Your task to perform on an android device: Do I have any events today? Image 0: 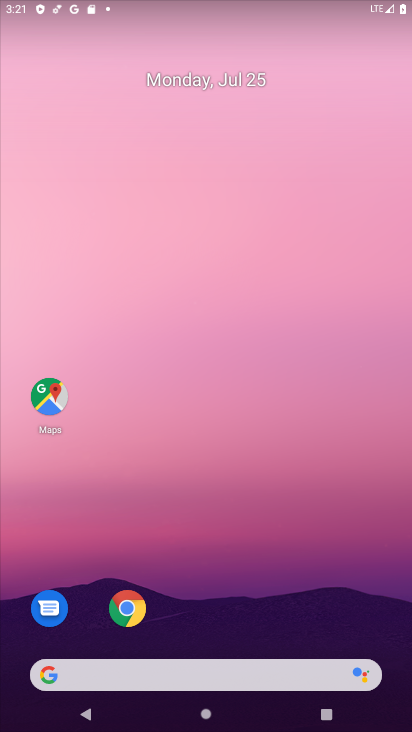
Step 0: drag from (18, 650) to (261, 69)
Your task to perform on an android device: Do I have any events today? Image 1: 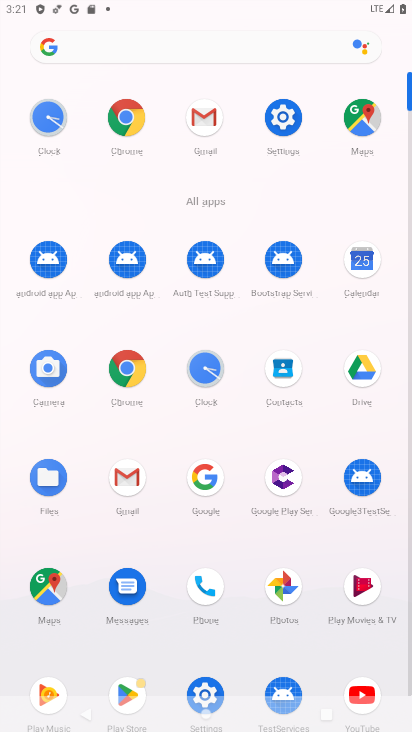
Step 1: click (367, 267)
Your task to perform on an android device: Do I have any events today? Image 2: 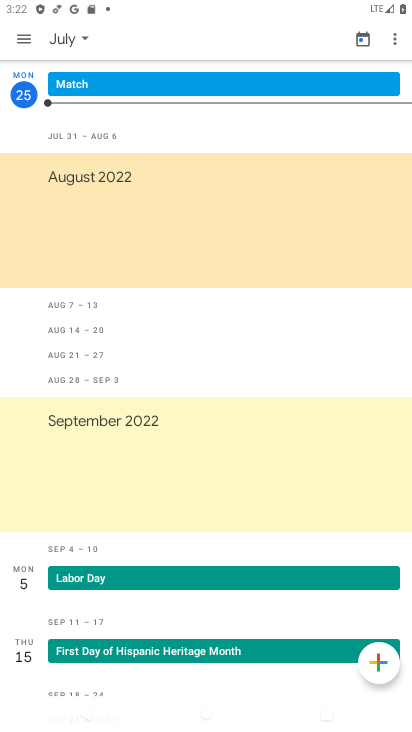
Step 2: task complete